Your task to perform on an android device: Open ESPN.com Image 0: 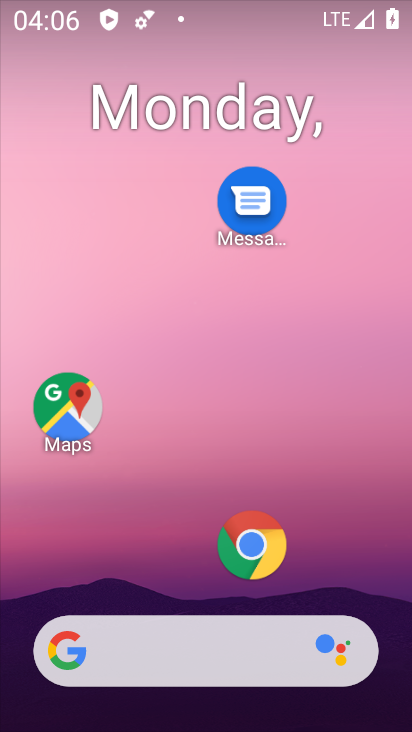
Step 0: click (265, 550)
Your task to perform on an android device: Open ESPN.com Image 1: 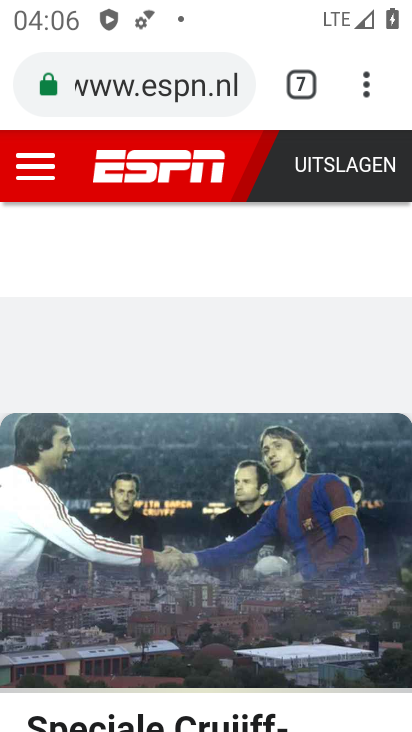
Step 1: task complete